Your task to perform on an android device: open app "LiveIn - Share Your Moment" (install if not already installed) and enter user name: "certifies@gmail.com" and password: "compartmented" Image 0: 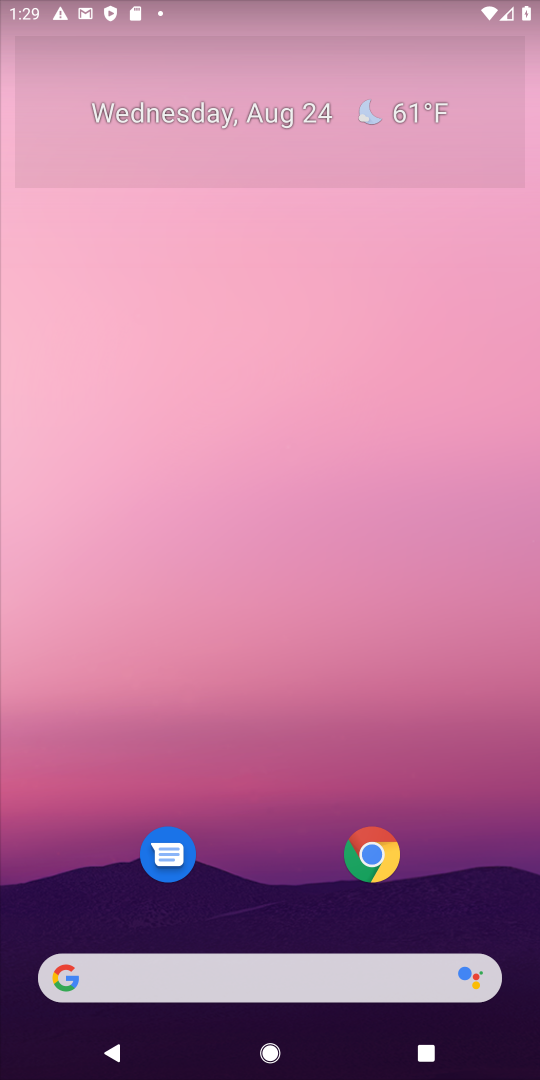
Step 0: press home button
Your task to perform on an android device: open app "LiveIn - Share Your Moment" (install if not already installed) and enter user name: "certifies@gmail.com" and password: "compartmented" Image 1: 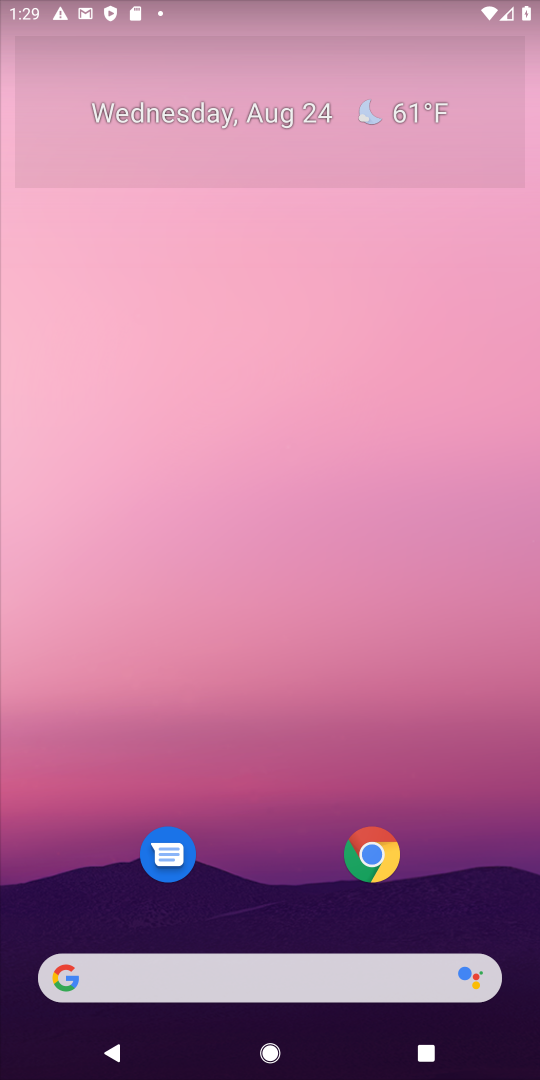
Step 1: drag from (466, 837) to (468, 159)
Your task to perform on an android device: open app "LiveIn - Share Your Moment" (install if not already installed) and enter user name: "certifies@gmail.com" and password: "compartmented" Image 2: 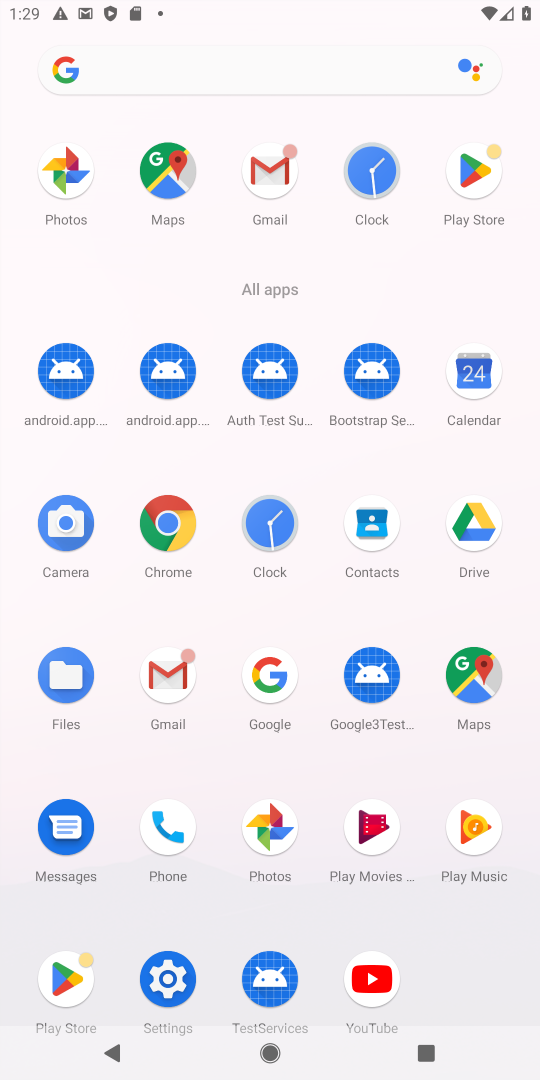
Step 2: click (471, 166)
Your task to perform on an android device: open app "LiveIn - Share Your Moment" (install if not already installed) and enter user name: "certifies@gmail.com" and password: "compartmented" Image 3: 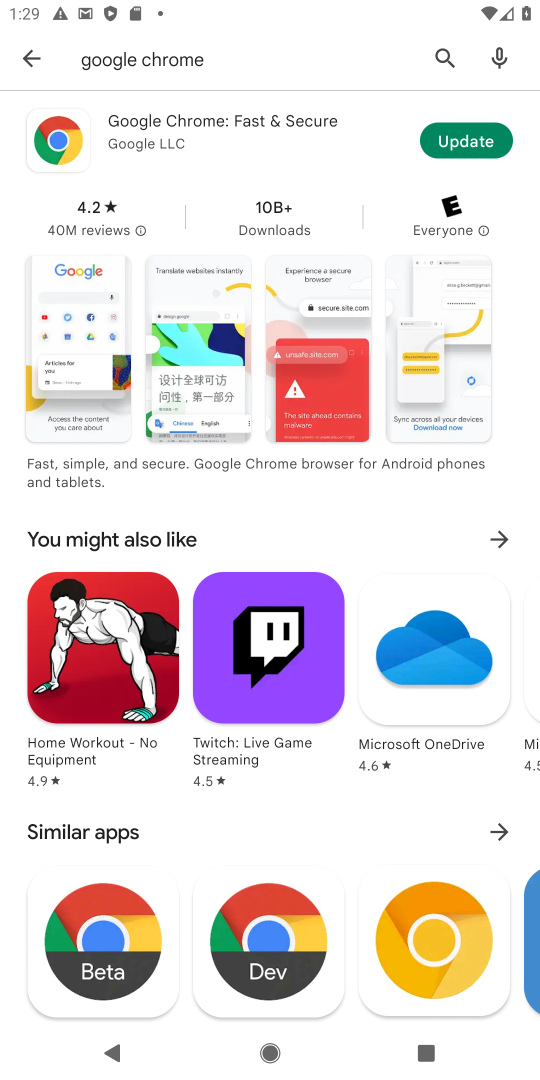
Step 3: press back button
Your task to perform on an android device: open app "LiveIn - Share Your Moment" (install if not already installed) and enter user name: "certifies@gmail.com" and password: "compartmented" Image 4: 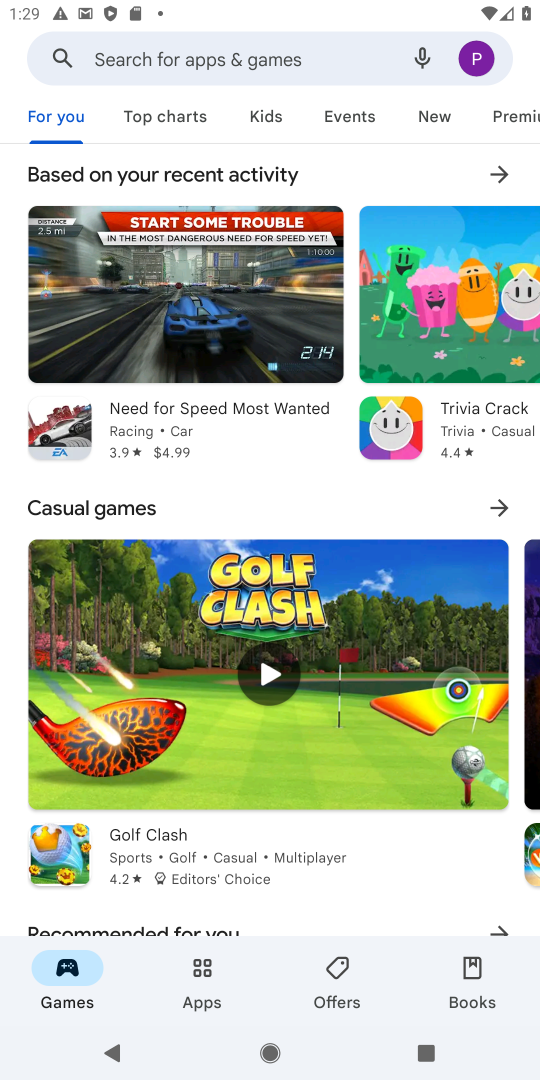
Step 4: click (294, 61)
Your task to perform on an android device: open app "LiveIn - Share Your Moment" (install if not already installed) and enter user name: "certifies@gmail.com" and password: "compartmented" Image 5: 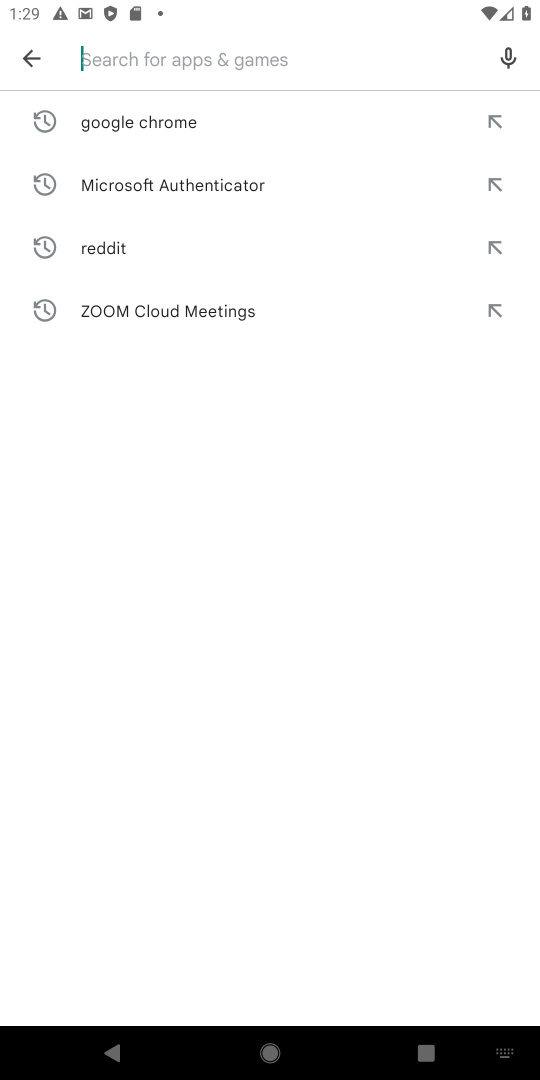
Step 5: type "LiveIn - Share Your Moment"
Your task to perform on an android device: open app "LiveIn - Share Your Moment" (install if not already installed) and enter user name: "certifies@gmail.com" and password: "compartmented" Image 6: 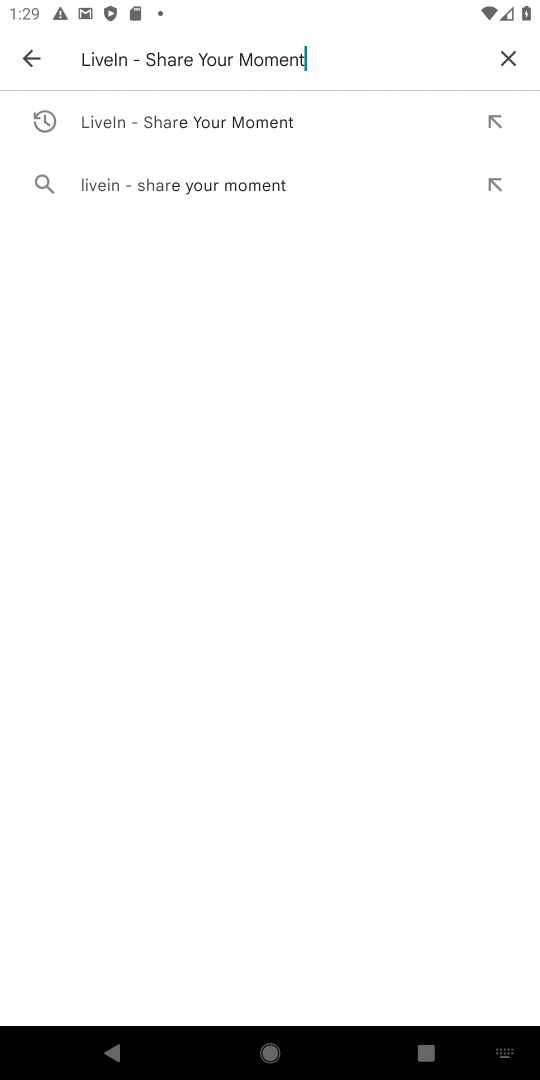
Step 6: press enter
Your task to perform on an android device: open app "LiveIn - Share Your Moment" (install if not already installed) and enter user name: "certifies@gmail.com" and password: "compartmented" Image 7: 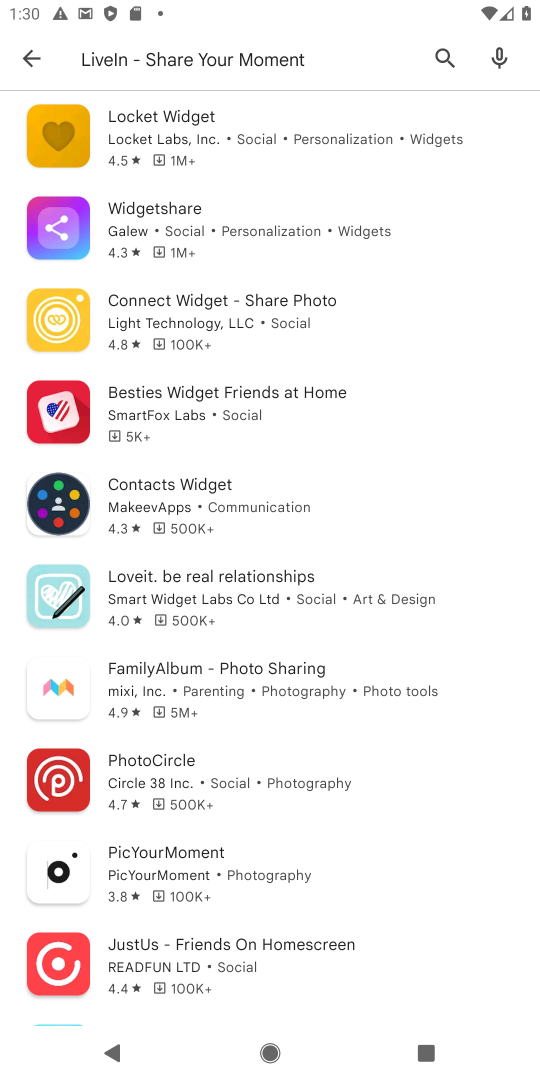
Step 7: task complete